Your task to perform on an android device: Open eBay Image 0: 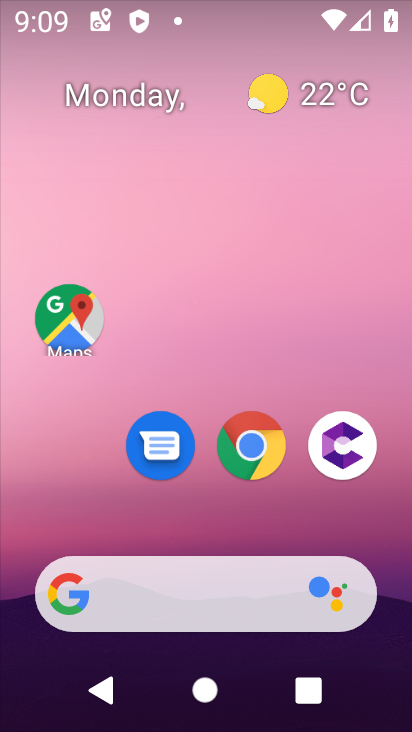
Step 0: click (54, 579)
Your task to perform on an android device: Open eBay Image 1: 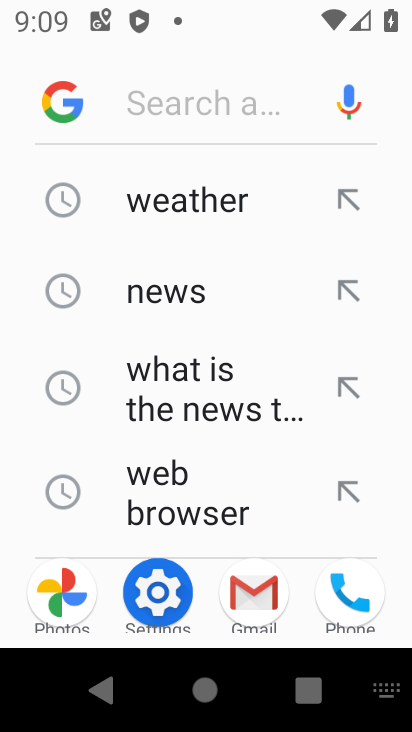
Step 1: type " eBay"
Your task to perform on an android device: Open eBay Image 2: 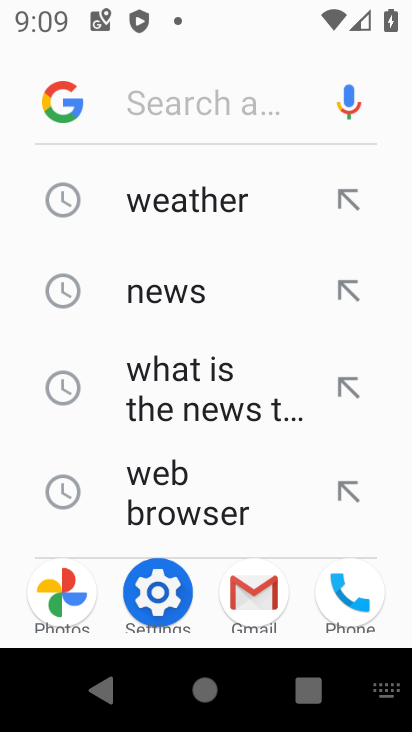
Step 2: click (191, 110)
Your task to perform on an android device: Open eBay Image 3: 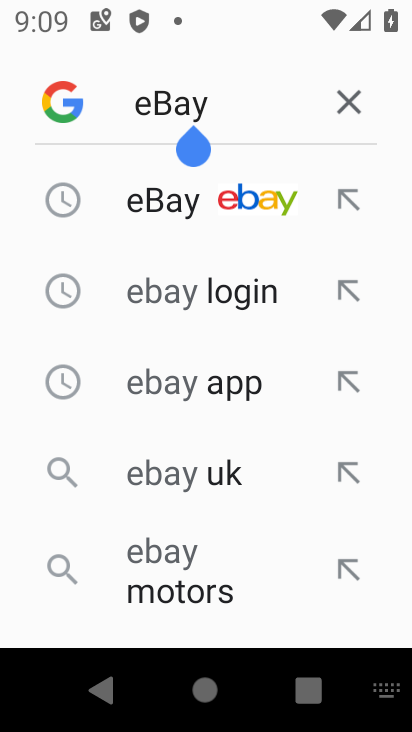
Step 3: click (176, 202)
Your task to perform on an android device: Open eBay Image 4: 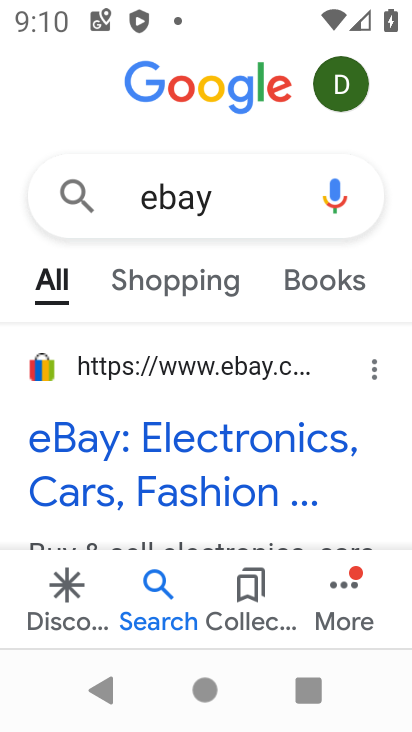
Step 4: click (199, 441)
Your task to perform on an android device: Open eBay Image 5: 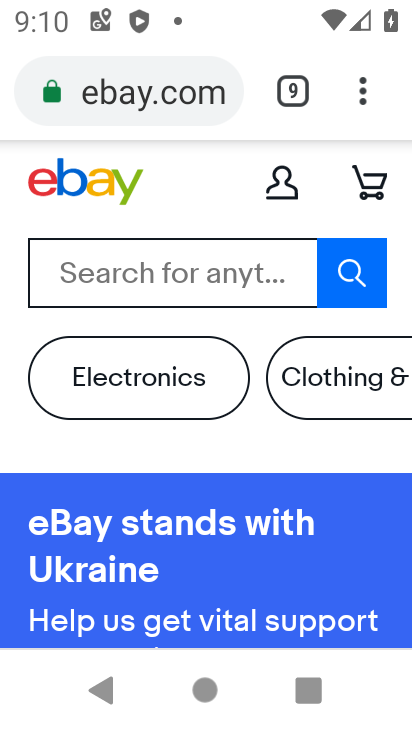
Step 5: task complete